Your task to perform on an android device: Open maps Image 0: 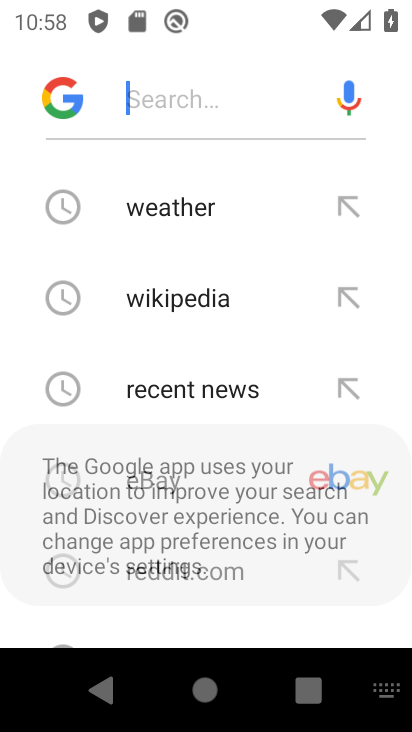
Step 0: press home button
Your task to perform on an android device: Open maps Image 1: 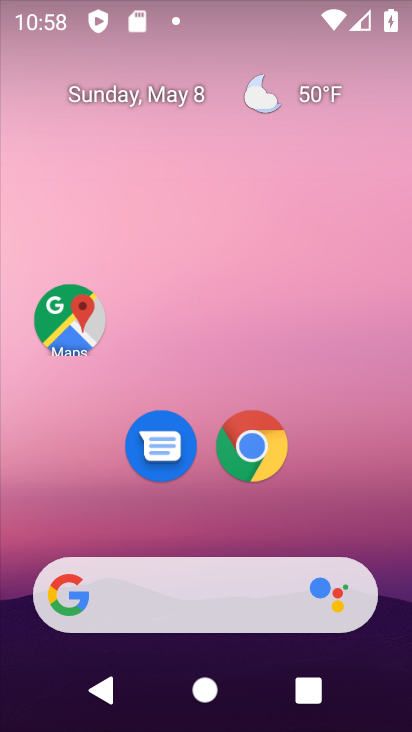
Step 1: drag from (257, 446) to (206, 91)
Your task to perform on an android device: Open maps Image 2: 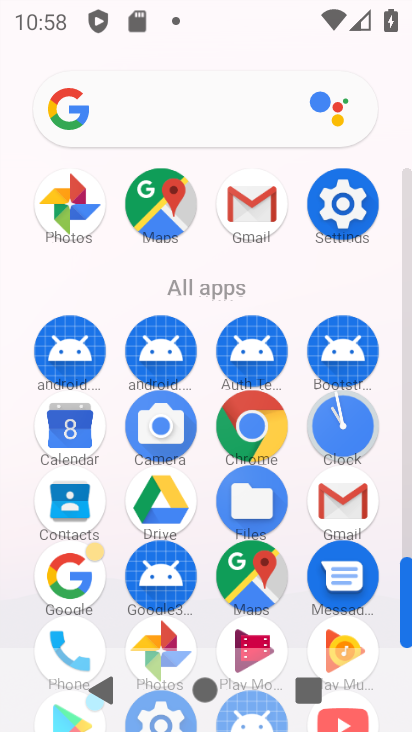
Step 2: click (143, 206)
Your task to perform on an android device: Open maps Image 3: 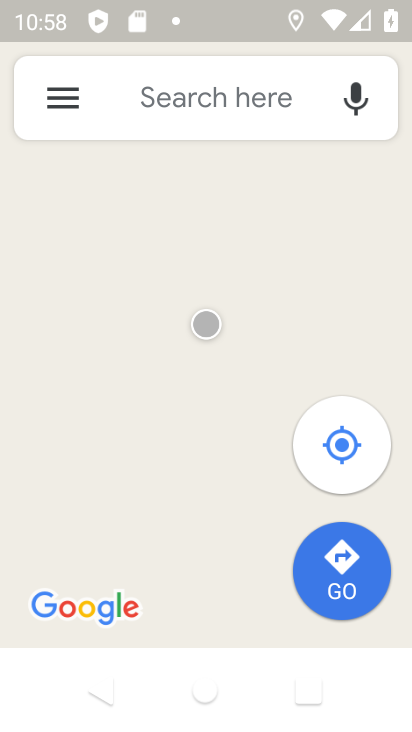
Step 3: task complete